Your task to perform on an android device: What is the recent news? Image 0: 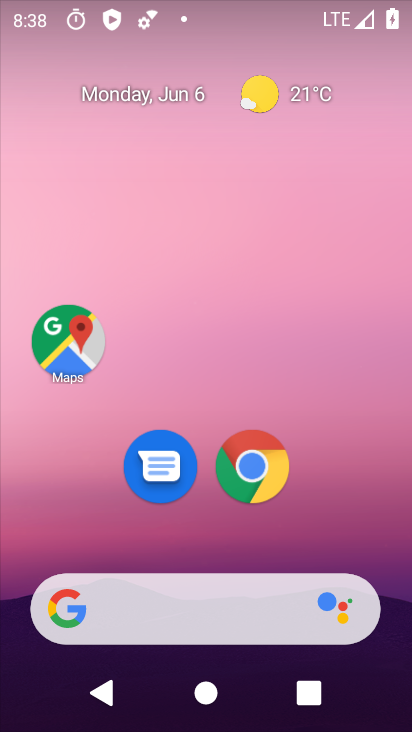
Step 0: drag from (306, 258) to (341, 175)
Your task to perform on an android device: What is the recent news? Image 1: 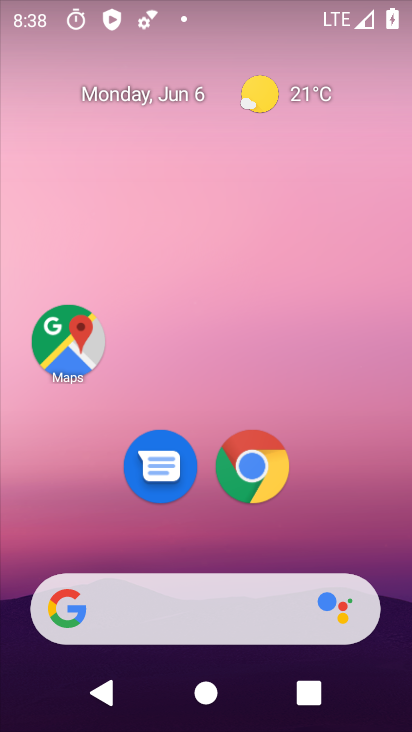
Step 1: drag from (199, 559) to (203, 99)
Your task to perform on an android device: What is the recent news? Image 2: 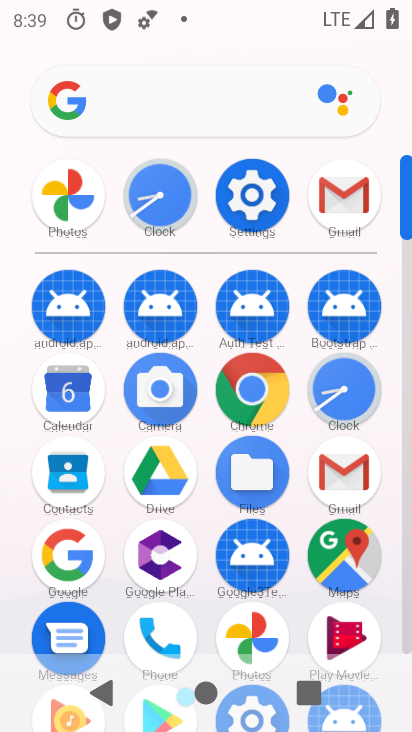
Step 2: click (220, 59)
Your task to perform on an android device: What is the recent news? Image 3: 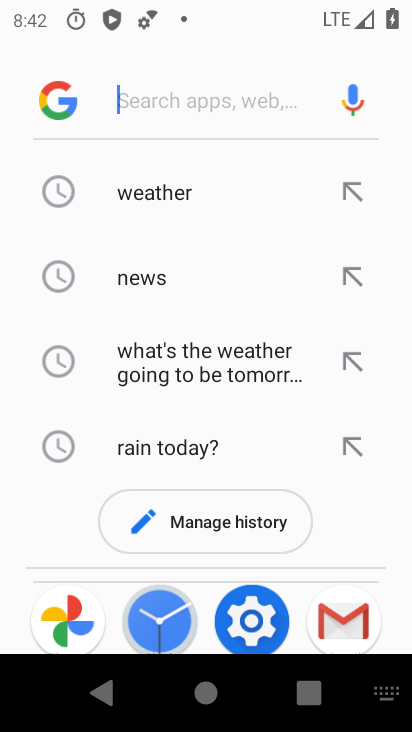
Step 3: type "recent news?"
Your task to perform on an android device: What is the recent news? Image 4: 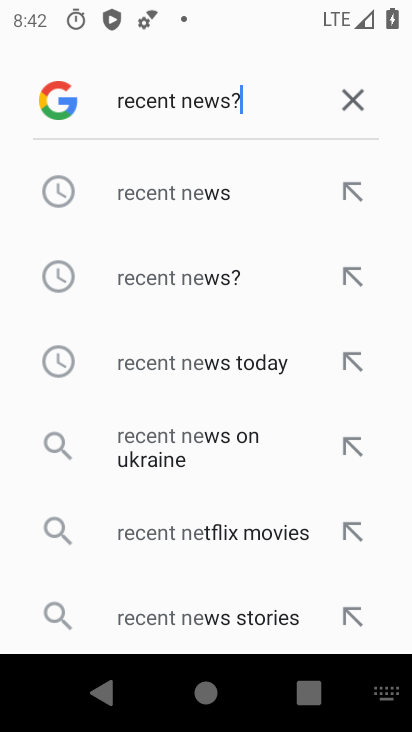
Step 4: type ""
Your task to perform on an android device: What is the recent news? Image 5: 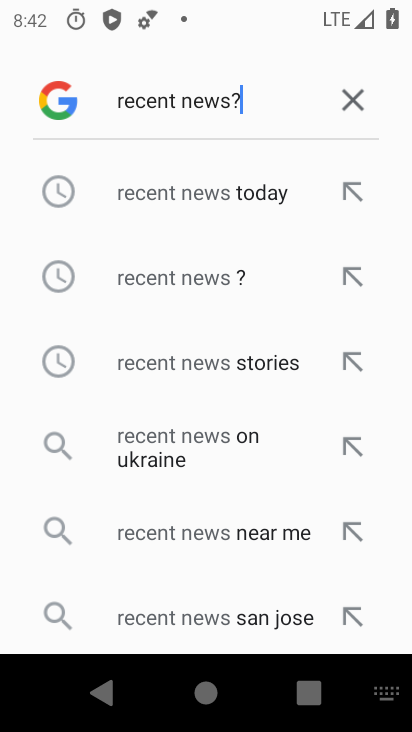
Step 5: click (154, 204)
Your task to perform on an android device: What is the recent news? Image 6: 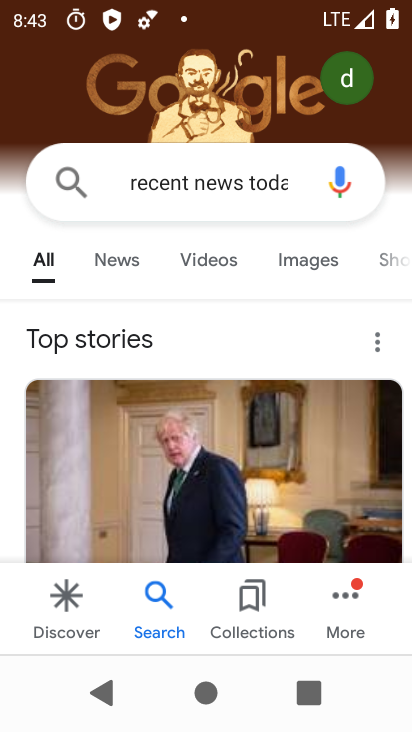
Step 6: task complete